Your task to perform on an android device: open a bookmark in the chrome app Image 0: 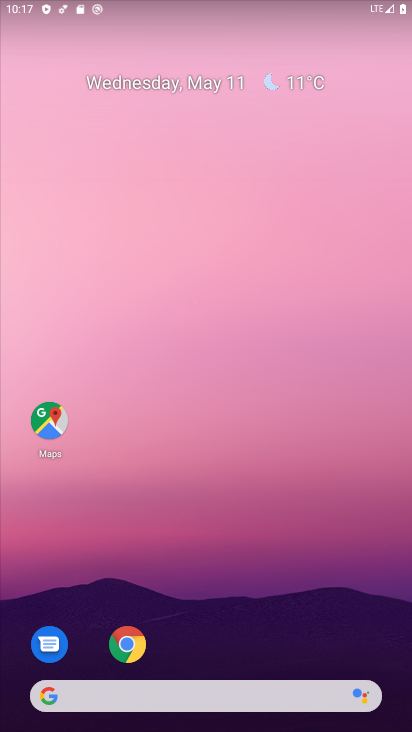
Step 0: click (121, 641)
Your task to perform on an android device: open a bookmark in the chrome app Image 1: 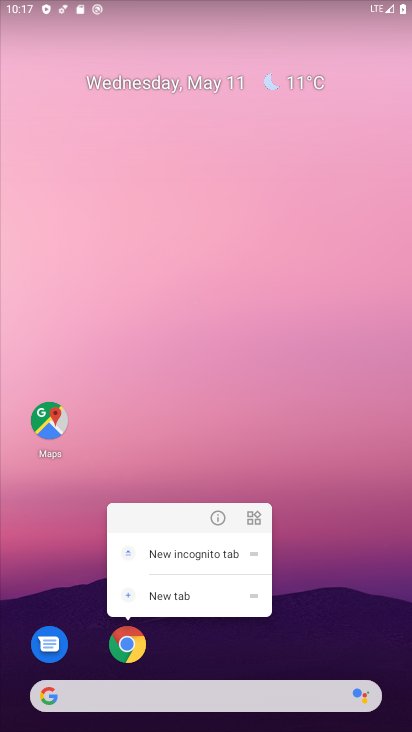
Step 1: click (125, 642)
Your task to perform on an android device: open a bookmark in the chrome app Image 2: 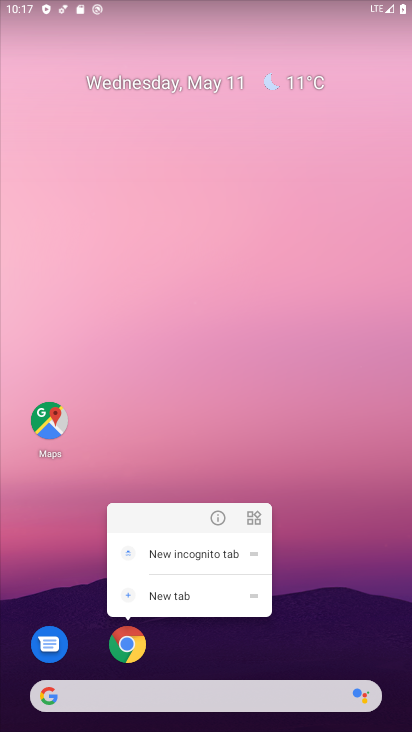
Step 2: click (129, 642)
Your task to perform on an android device: open a bookmark in the chrome app Image 3: 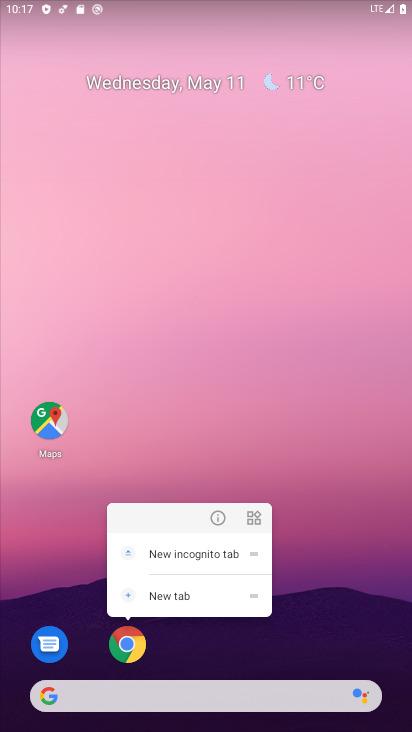
Step 3: click (257, 647)
Your task to perform on an android device: open a bookmark in the chrome app Image 4: 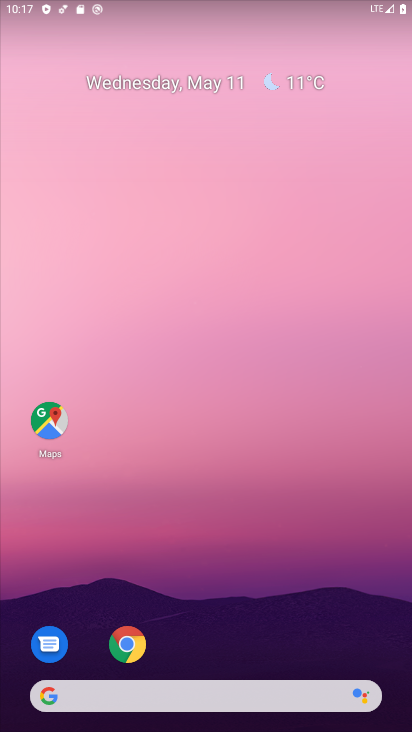
Step 4: click (128, 646)
Your task to perform on an android device: open a bookmark in the chrome app Image 5: 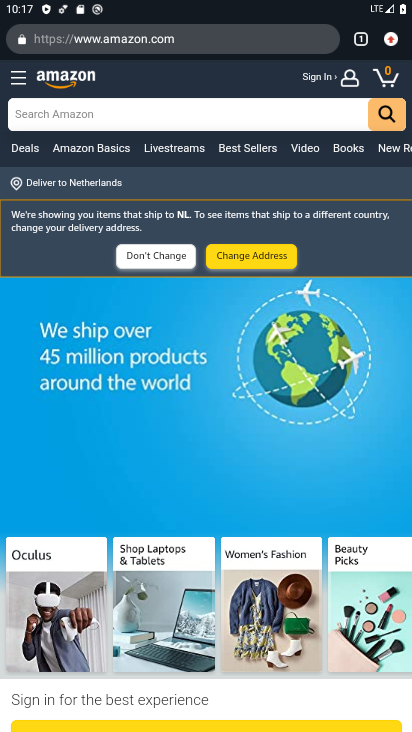
Step 5: click (388, 38)
Your task to perform on an android device: open a bookmark in the chrome app Image 6: 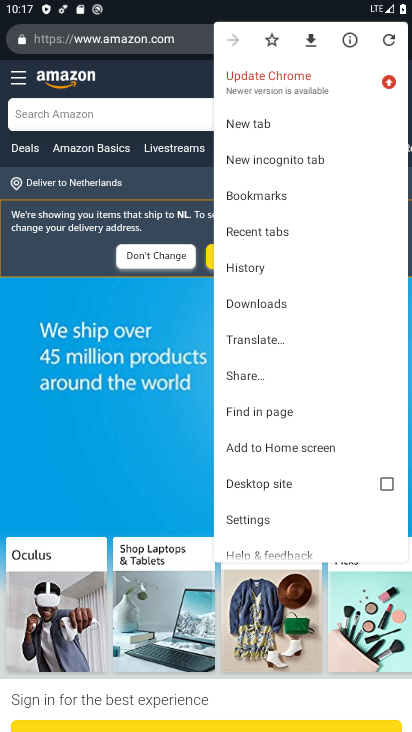
Step 6: click (272, 190)
Your task to perform on an android device: open a bookmark in the chrome app Image 7: 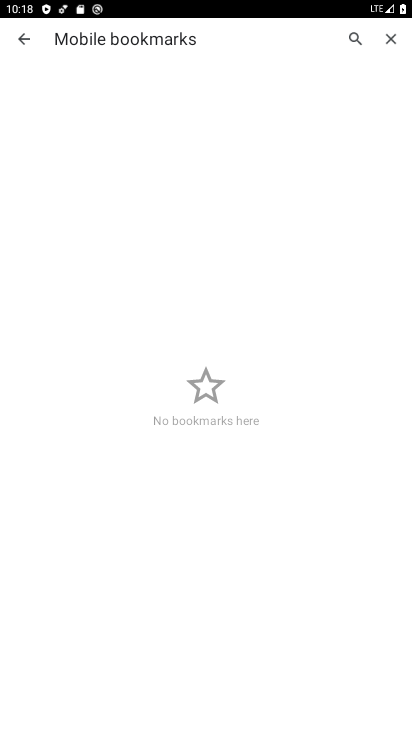
Step 7: task complete